Your task to perform on an android device: change the clock style Image 0: 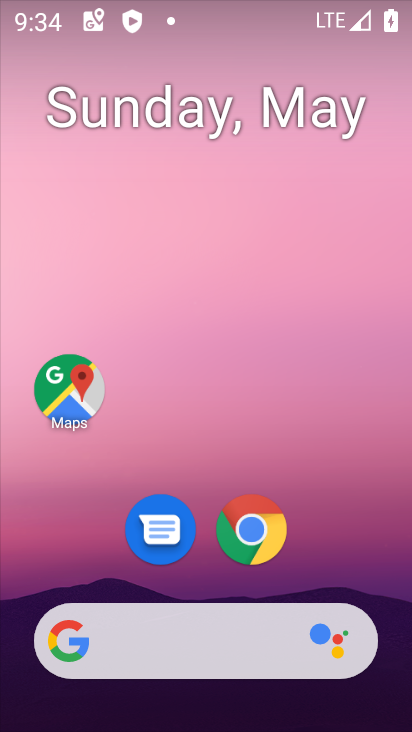
Step 0: drag from (364, 568) to (190, 0)
Your task to perform on an android device: change the clock style Image 1: 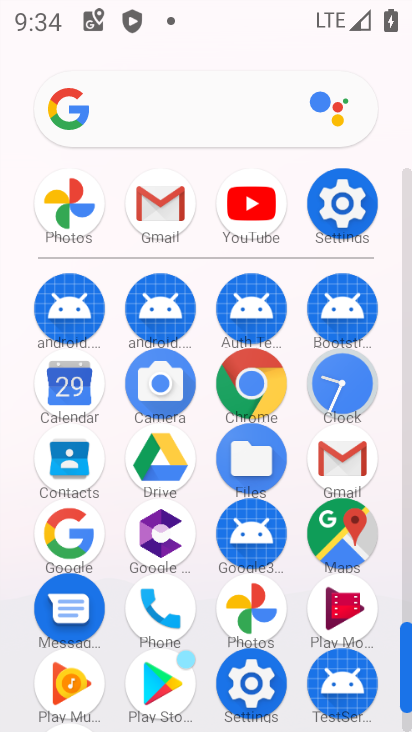
Step 1: click (332, 379)
Your task to perform on an android device: change the clock style Image 2: 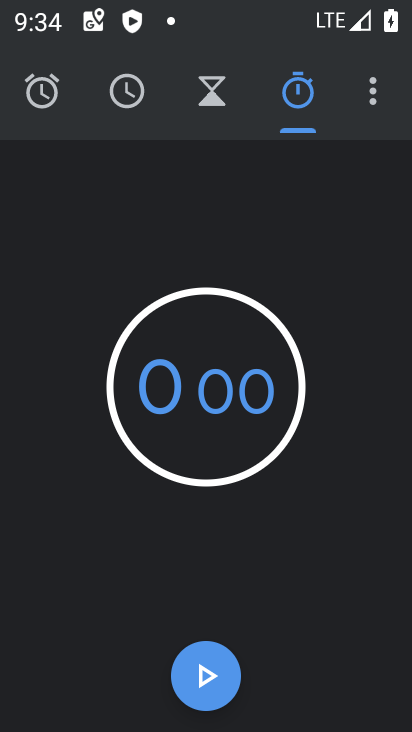
Step 2: click (377, 102)
Your task to perform on an android device: change the clock style Image 3: 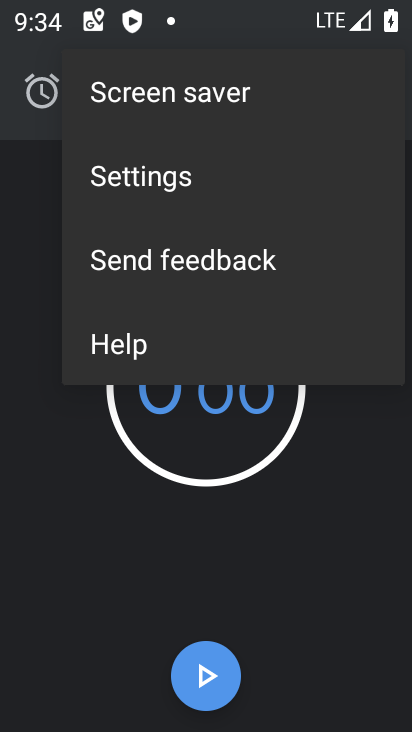
Step 3: click (203, 133)
Your task to perform on an android device: change the clock style Image 4: 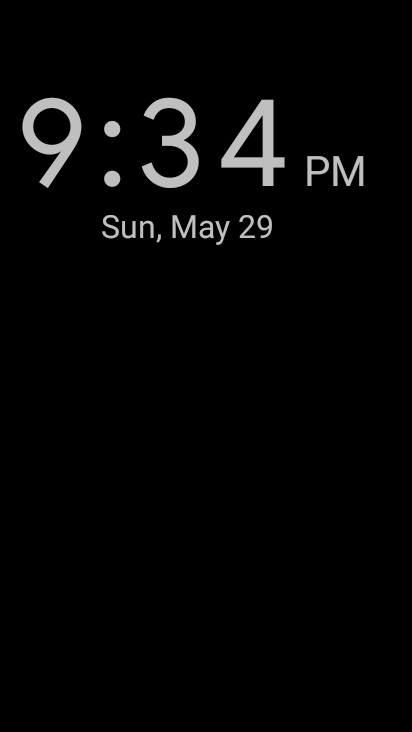
Step 4: press home button
Your task to perform on an android device: change the clock style Image 5: 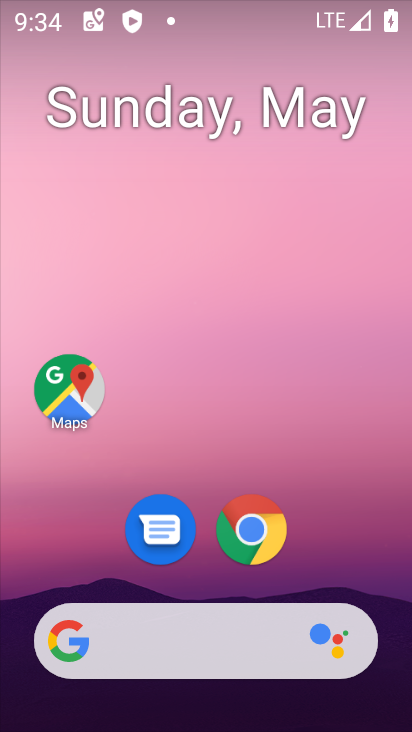
Step 5: drag from (351, 543) to (302, 19)
Your task to perform on an android device: change the clock style Image 6: 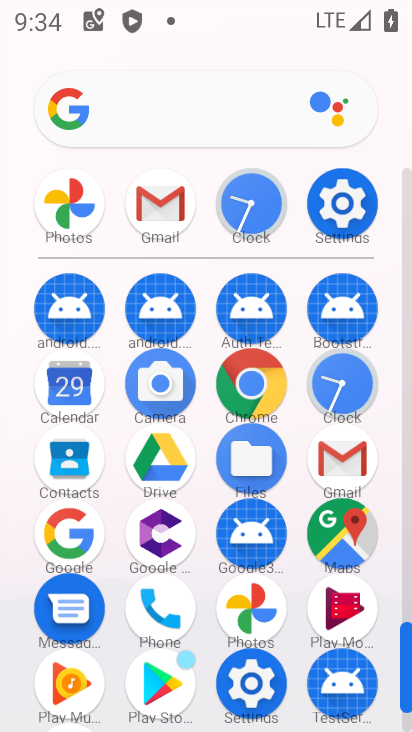
Step 6: click (252, 233)
Your task to perform on an android device: change the clock style Image 7: 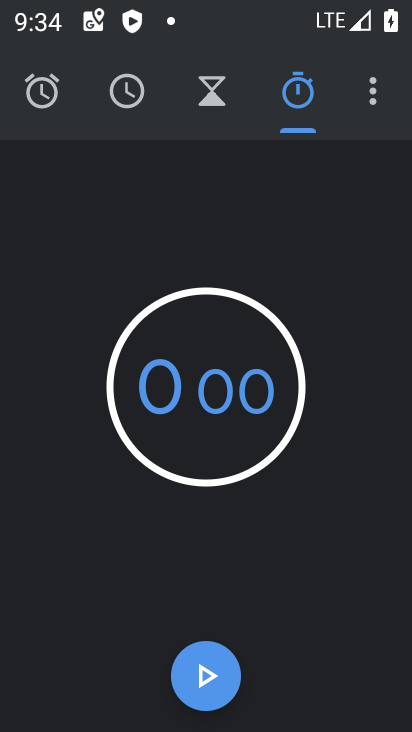
Step 7: click (389, 82)
Your task to perform on an android device: change the clock style Image 8: 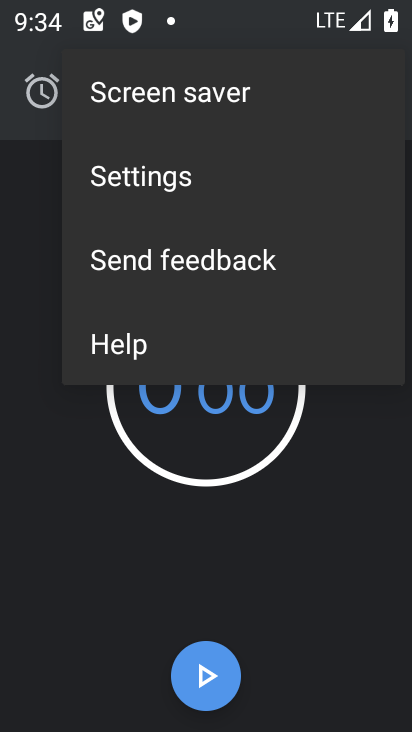
Step 8: click (245, 186)
Your task to perform on an android device: change the clock style Image 9: 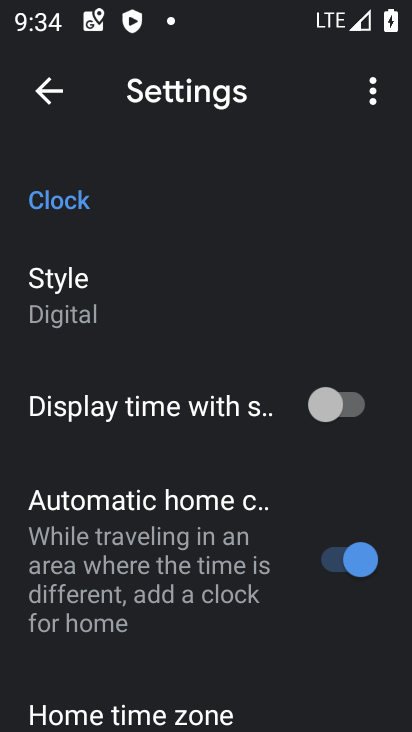
Step 9: click (180, 301)
Your task to perform on an android device: change the clock style Image 10: 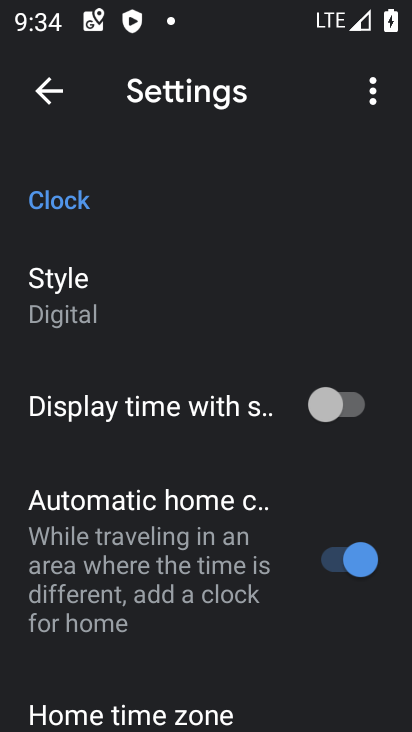
Step 10: click (180, 301)
Your task to perform on an android device: change the clock style Image 11: 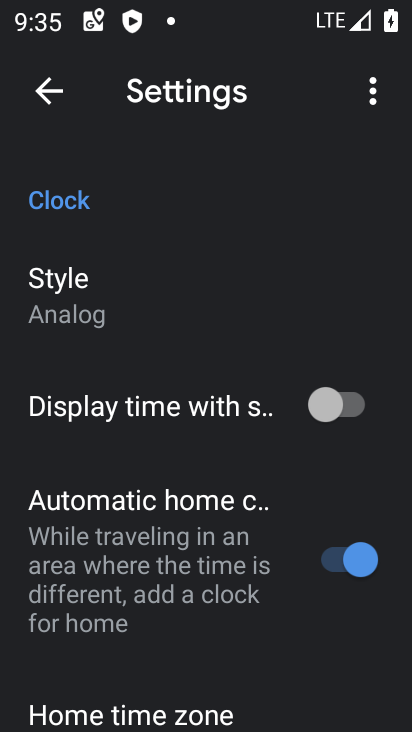
Step 11: task complete